Your task to perform on an android device: turn off priority inbox in the gmail app Image 0: 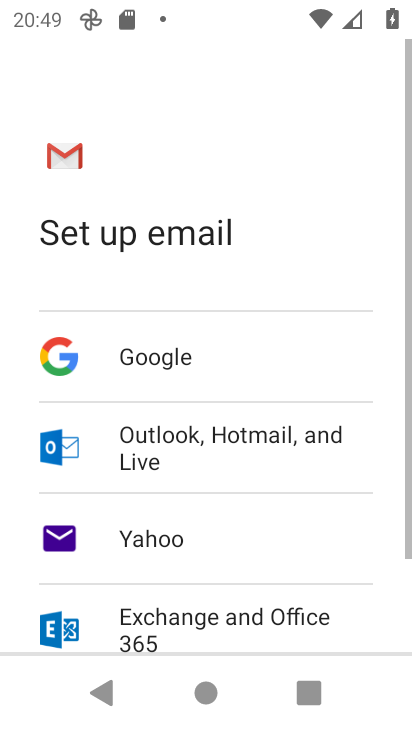
Step 0: press home button
Your task to perform on an android device: turn off priority inbox in the gmail app Image 1: 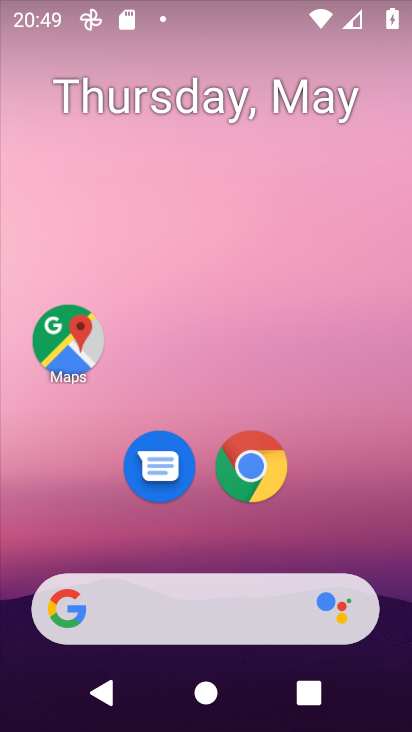
Step 1: drag from (361, 543) to (322, 126)
Your task to perform on an android device: turn off priority inbox in the gmail app Image 2: 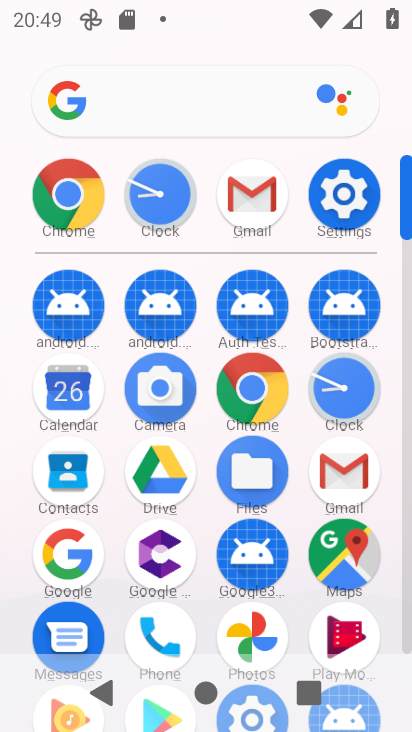
Step 2: click (270, 219)
Your task to perform on an android device: turn off priority inbox in the gmail app Image 3: 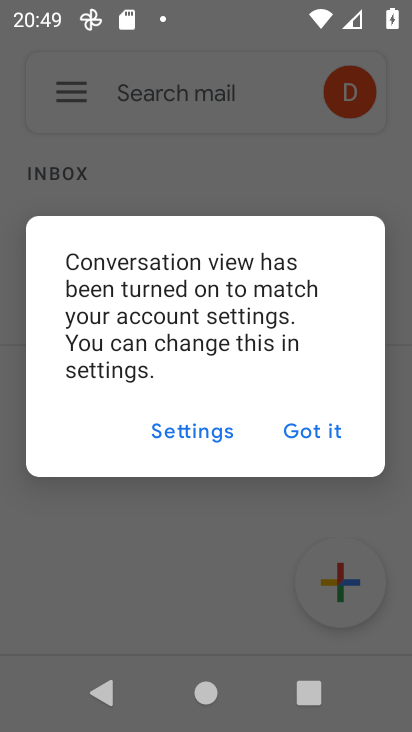
Step 3: click (338, 411)
Your task to perform on an android device: turn off priority inbox in the gmail app Image 4: 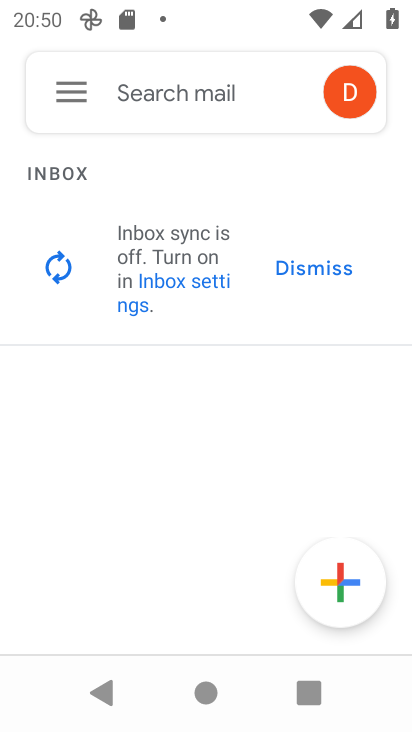
Step 4: click (84, 109)
Your task to perform on an android device: turn off priority inbox in the gmail app Image 5: 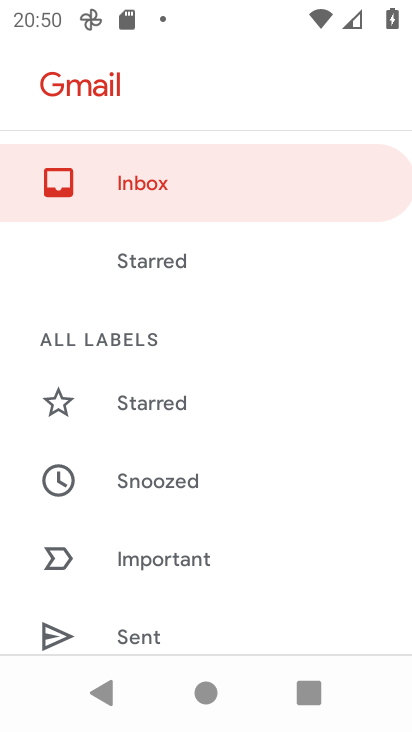
Step 5: task complete